Your task to perform on an android device: find snoozed emails in the gmail app Image 0: 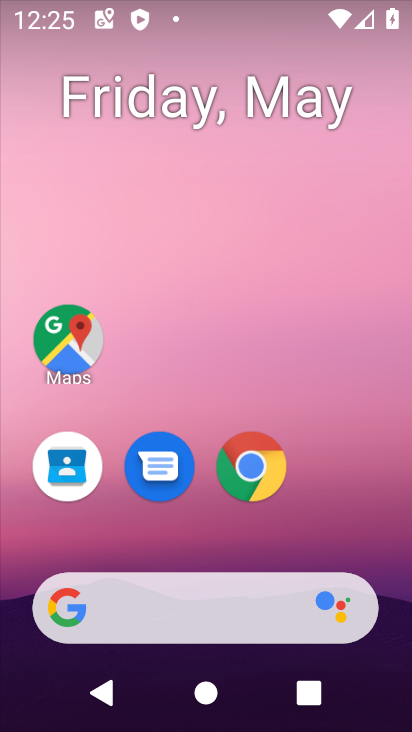
Step 0: drag from (223, 560) to (141, 12)
Your task to perform on an android device: find snoozed emails in the gmail app Image 1: 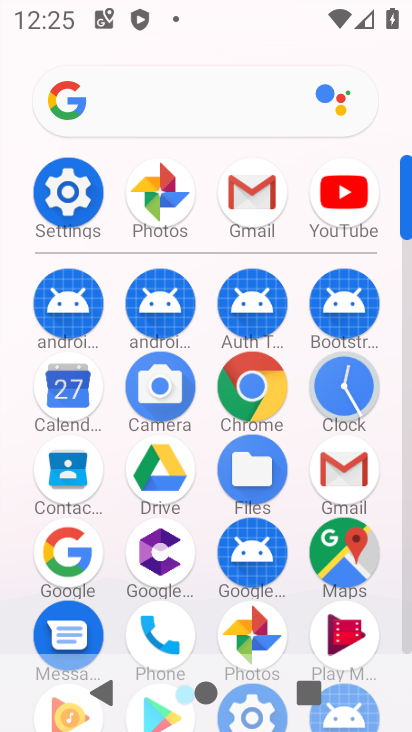
Step 1: click (256, 199)
Your task to perform on an android device: find snoozed emails in the gmail app Image 2: 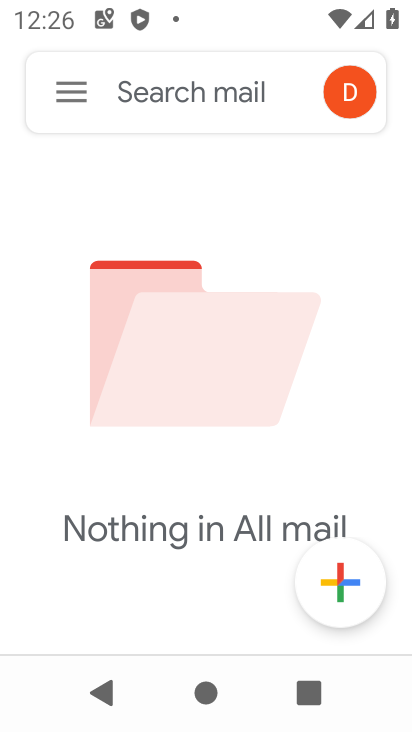
Step 2: click (78, 92)
Your task to perform on an android device: find snoozed emails in the gmail app Image 3: 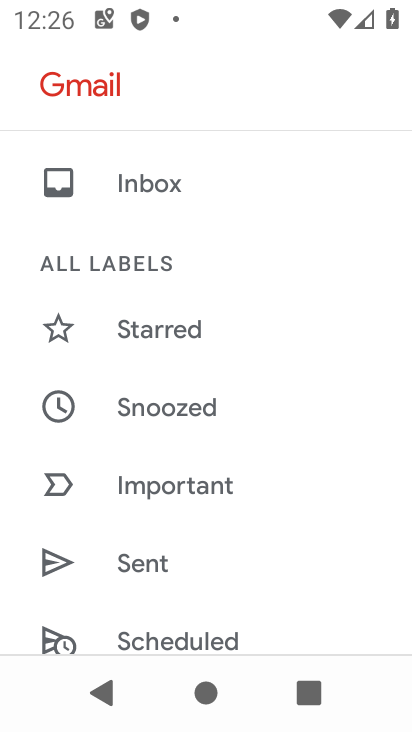
Step 3: click (149, 414)
Your task to perform on an android device: find snoozed emails in the gmail app Image 4: 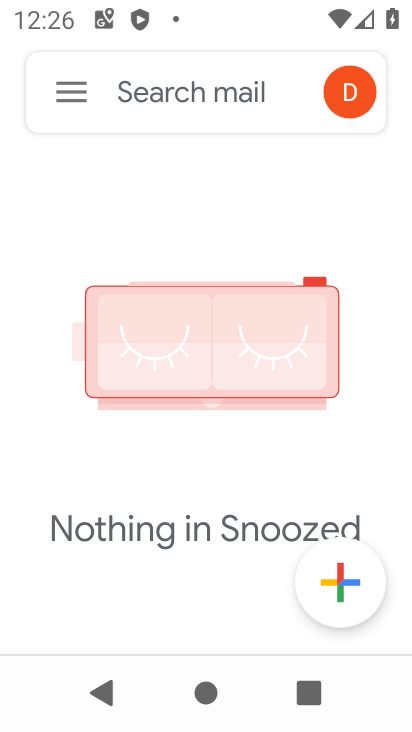
Step 4: task complete